Your task to perform on an android device: Is it going to rain tomorrow? Image 0: 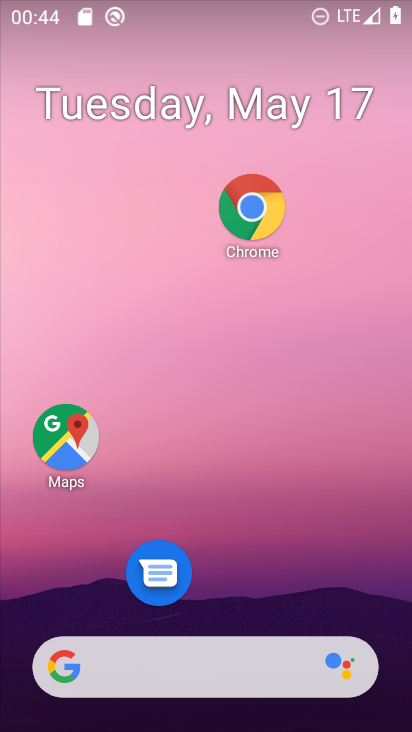
Step 0: drag from (288, 655) to (232, 0)
Your task to perform on an android device: Is it going to rain tomorrow? Image 1: 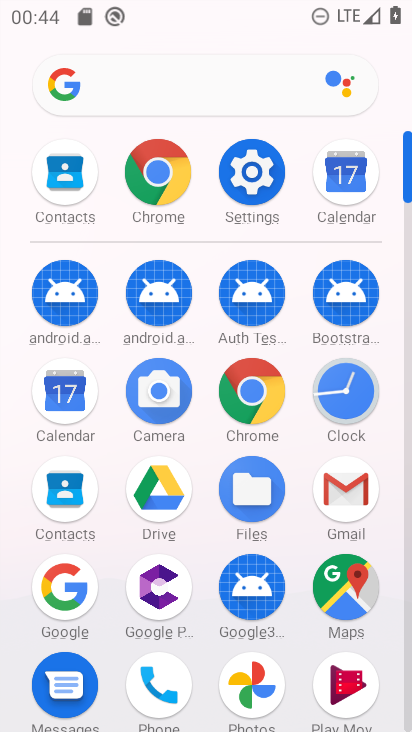
Step 1: press home button
Your task to perform on an android device: Is it going to rain tomorrow? Image 2: 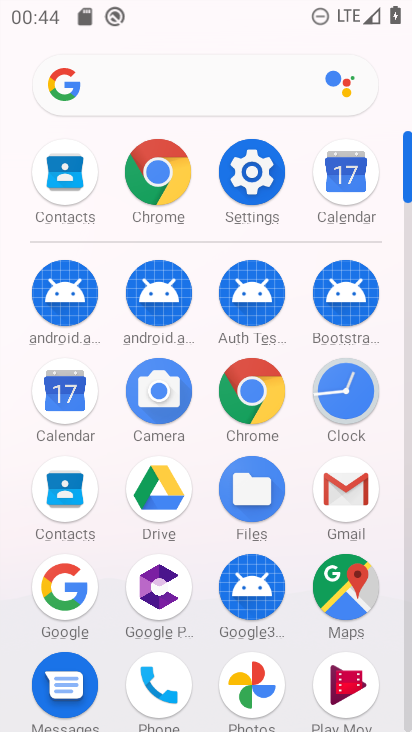
Step 2: click (397, 401)
Your task to perform on an android device: Is it going to rain tomorrow? Image 3: 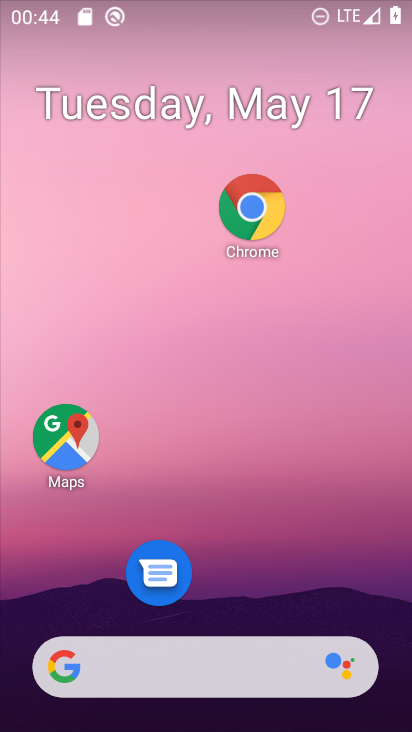
Step 3: drag from (19, 363) to (402, 339)
Your task to perform on an android device: Is it going to rain tomorrow? Image 4: 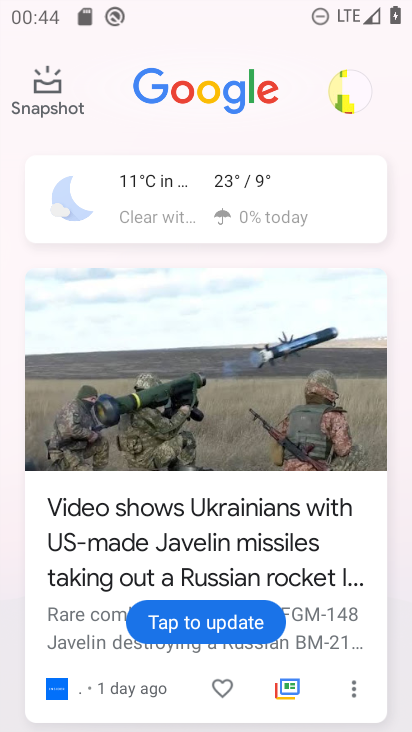
Step 4: click (239, 215)
Your task to perform on an android device: Is it going to rain tomorrow? Image 5: 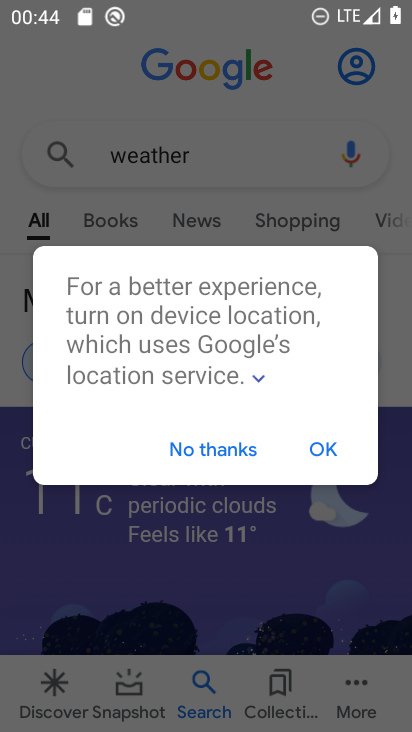
Step 5: click (232, 449)
Your task to perform on an android device: Is it going to rain tomorrow? Image 6: 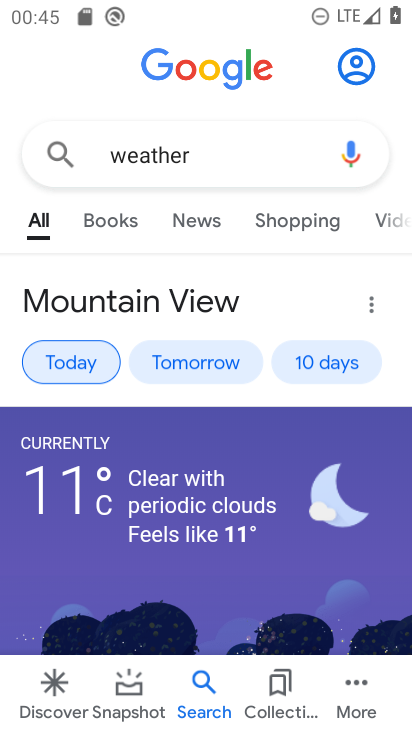
Step 6: task complete